Your task to perform on an android device: check data usage Image 0: 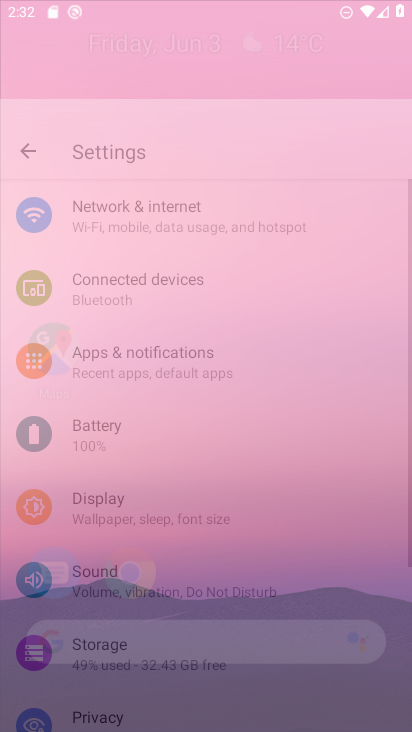
Step 0: click (216, 235)
Your task to perform on an android device: check data usage Image 1: 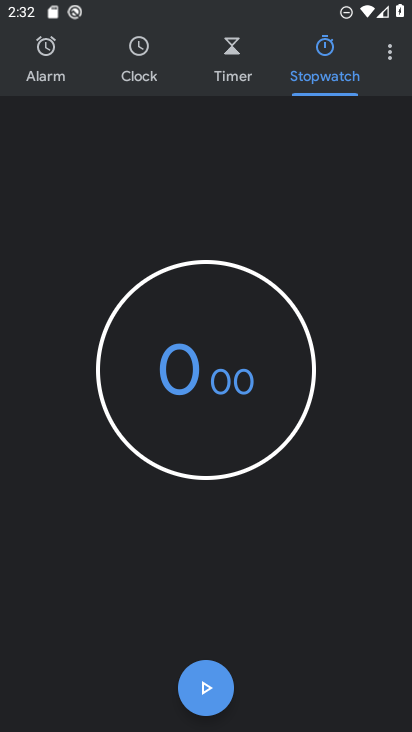
Step 1: drag from (271, 625) to (301, 78)
Your task to perform on an android device: check data usage Image 2: 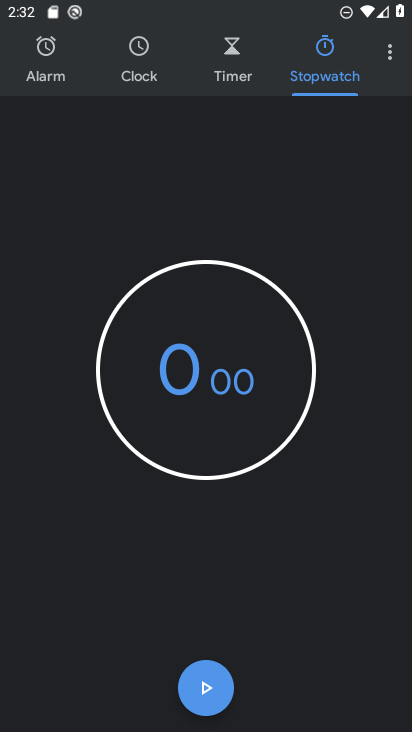
Step 2: press home button
Your task to perform on an android device: check data usage Image 3: 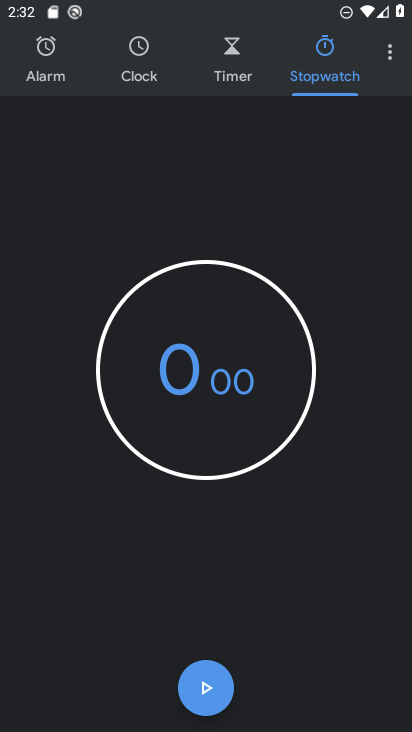
Step 3: drag from (218, 644) to (232, 176)
Your task to perform on an android device: check data usage Image 4: 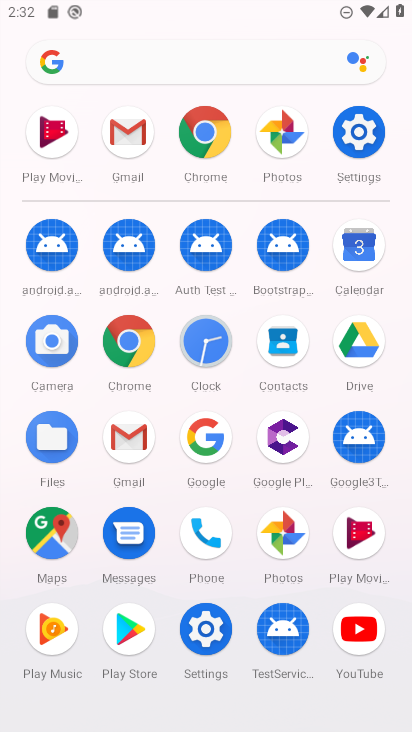
Step 4: click (371, 124)
Your task to perform on an android device: check data usage Image 5: 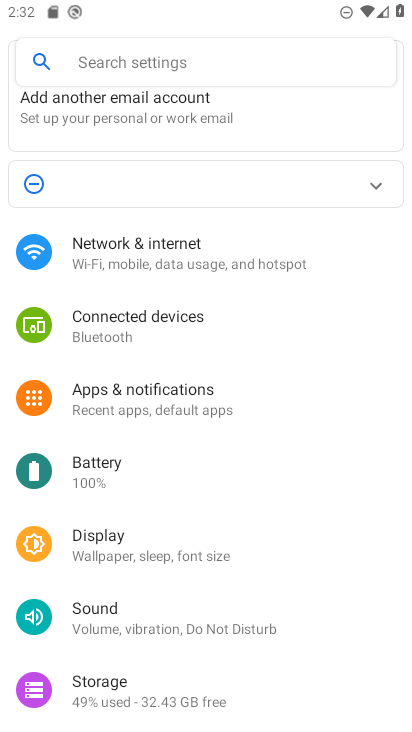
Step 5: click (182, 395)
Your task to perform on an android device: check data usage Image 6: 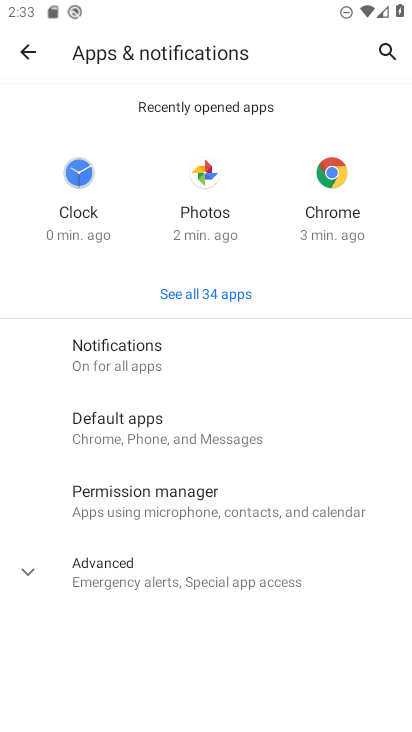
Step 6: click (29, 72)
Your task to perform on an android device: check data usage Image 7: 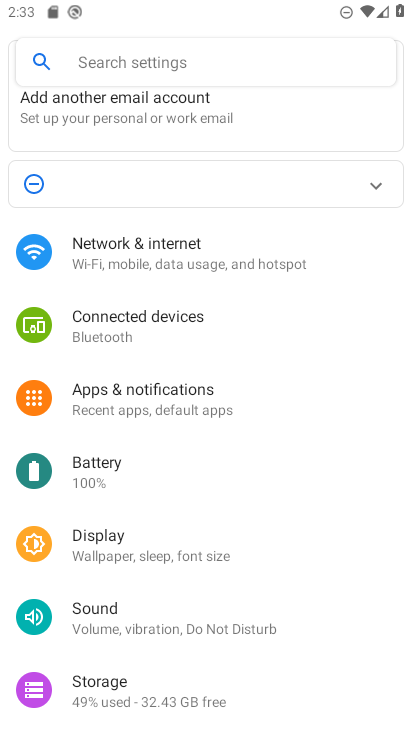
Step 7: click (163, 255)
Your task to perform on an android device: check data usage Image 8: 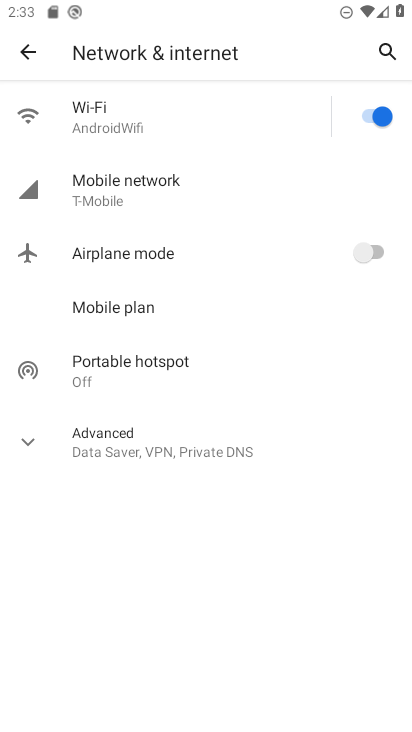
Step 8: click (178, 207)
Your task to perform on an android device: check data usage Image 9: 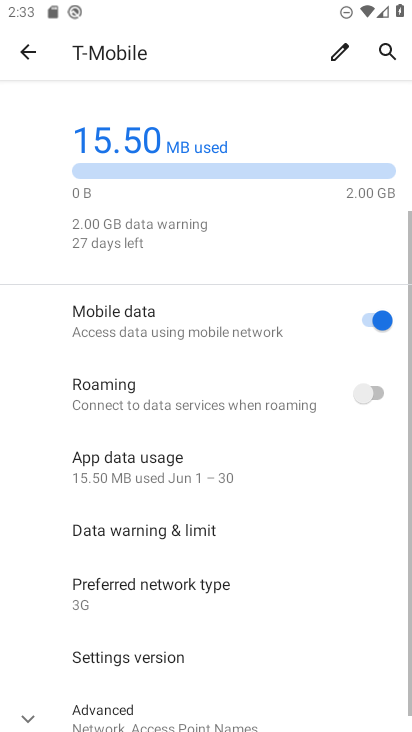
Step 9: task complete